Your task to perform on an android device: check the backup settings in the google photos Image 0: 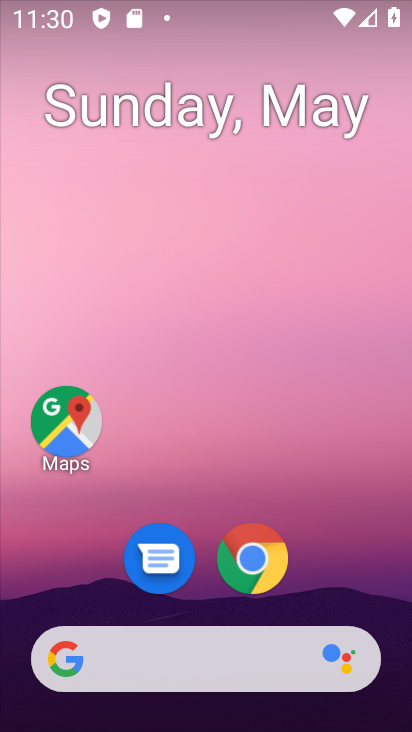
Step 0: drag from (371, 564) to (377, 82)
Your task to perform on an android device: check the backup settings in the google photos Image 1: 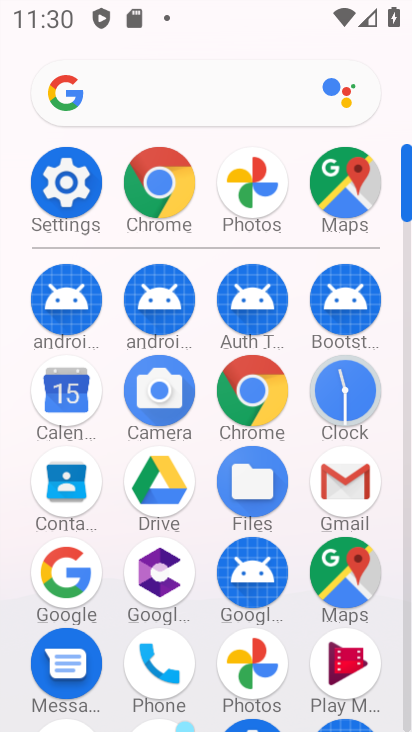
Step 1: click (271, 654)
Your task to perform on an android device: check the backup settings in the google photos Image 2: 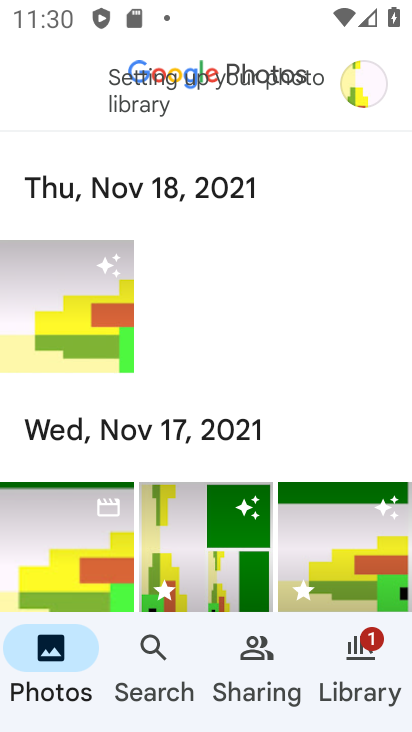
Step 2: click (362, 88)
Your task to perform on an android device: check the backup settings in the google photos Image 3: 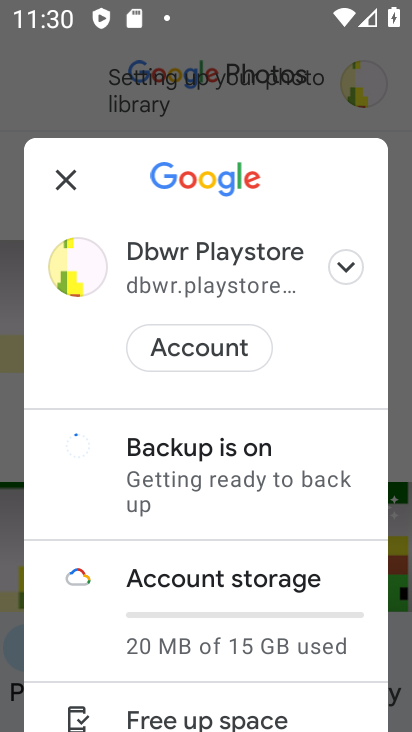
Step 3: drag from (301, 674) to (312, 403)
Your task to perform on an android device: check the backup settings in the google photos Image 4: 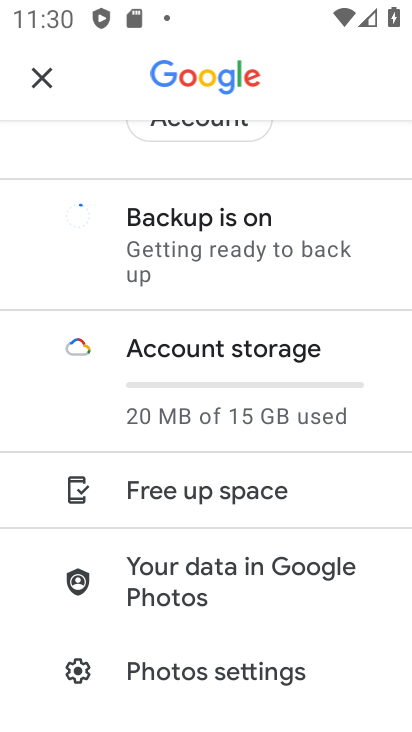
Step 4: click (283, 676)
Your task to perform on an android device: check the backup settings in the google photos Image 5: 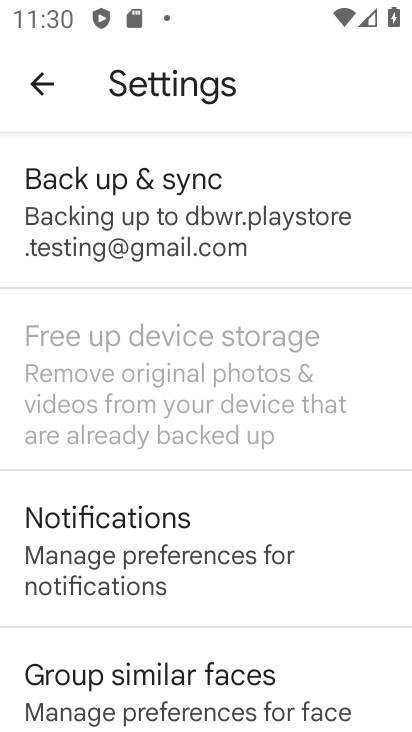
Step 5: click (143, 209)
Your task to perform on an android device: check the backup settings in the google photos Image 6: 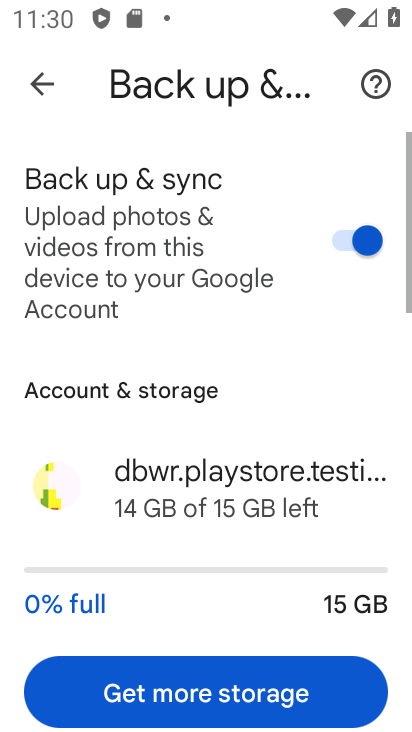
Step 6: task complete